Your task to perform on an android device: turn on improve location accuracy Image 0: 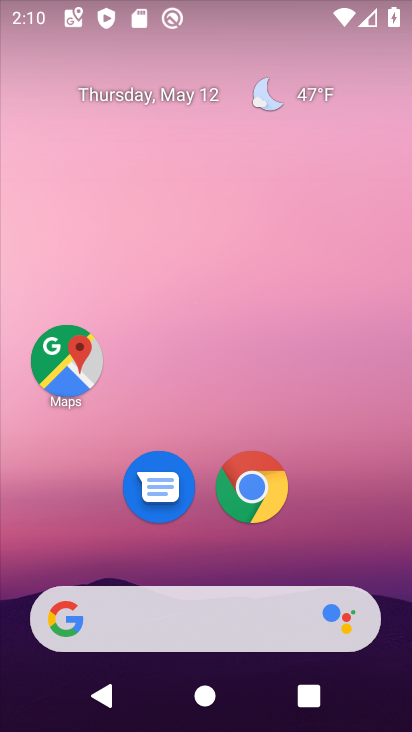
Step 0: drag from (310, 533) to (297, 62)
Your task to perform on an android device: turn on improve location accuracy Image 1: 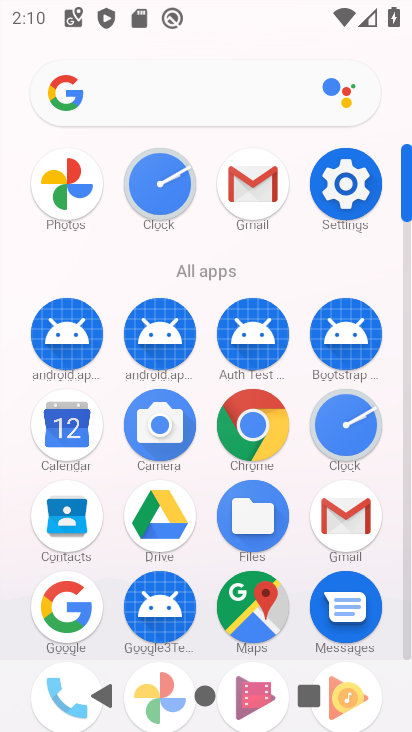
Step 1: click (350, 173)
Your task to perform on an android device: turn on improve location accuracy Image 2: 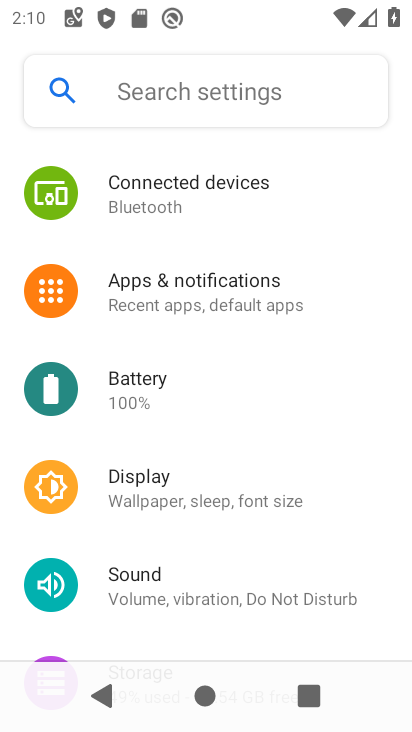
Step 2: drag from (223, 478) to (251, 149)
Your task to perform on an android device: turn on improve location accuracy Image 3: 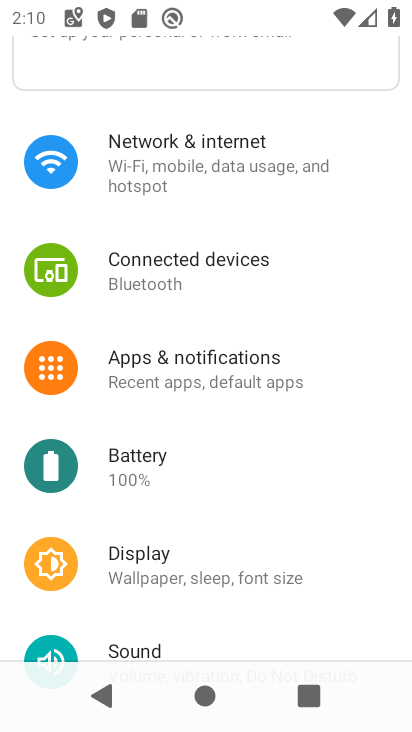
Step 3: drag from (169, 588) to (245, 203)
Your task to perform on an android device: turn on improve location accuracy Image 4: 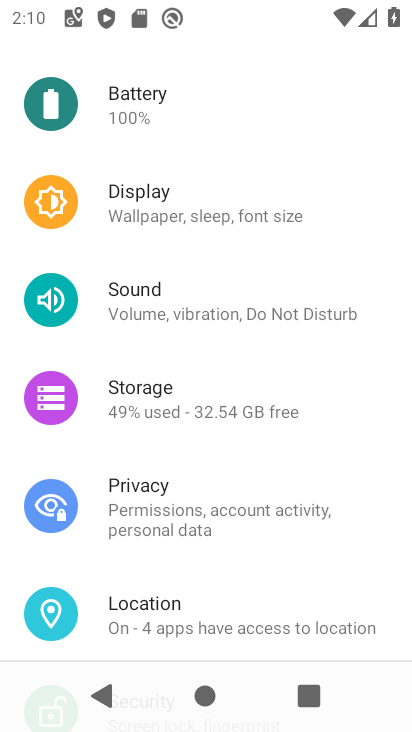
Step 4: click (187, 609)
Your task to perform on an android device: turn on improve location accuracy Image 5: 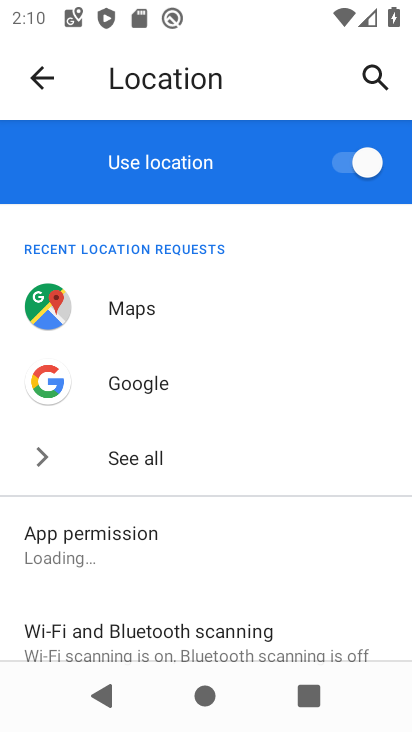
Step 5: drag from (191, 574) to (201, 227)
Your task to perform on an android device: turn on improve location accuracy Image 6: 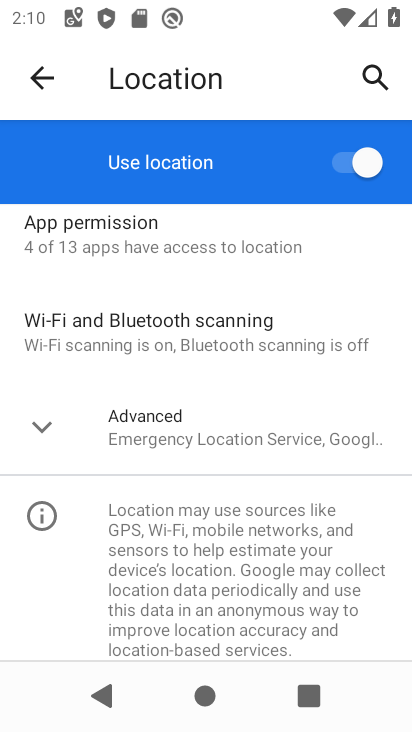
Step 6: click (194, 435)
Your task to perform on an android device: turn on improve location accuracy Image 7: 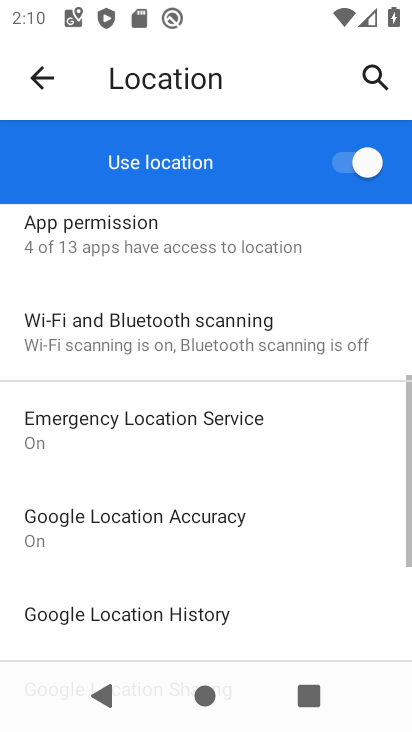
Step 7: drag from (234, 580) to (265, 315)
Your task to perform on an android device: turn on improve location accuracy Image 8: 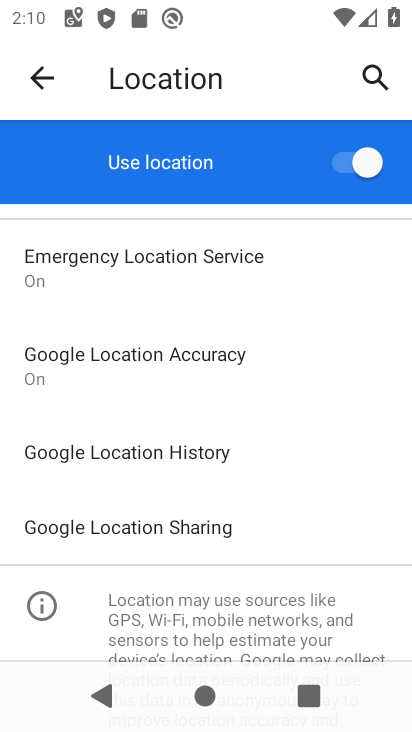
Step 8: click (203, 370)
Your task to perform on an android device: turn on improve location accuracy Image 9: 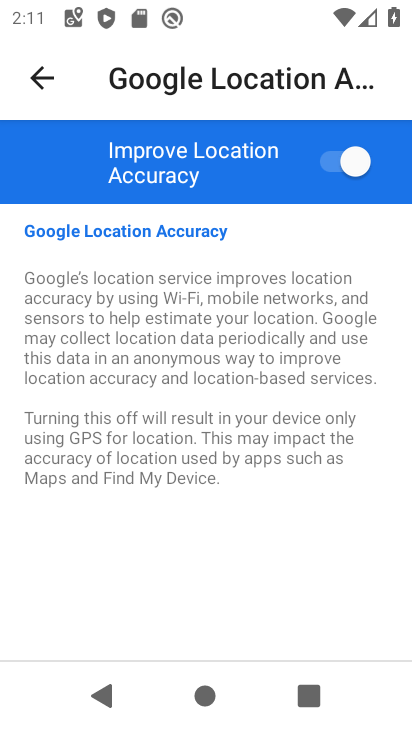
Step 9: task complete